Your task to perform on an android device: turn on translation in the chrome app Image 0: 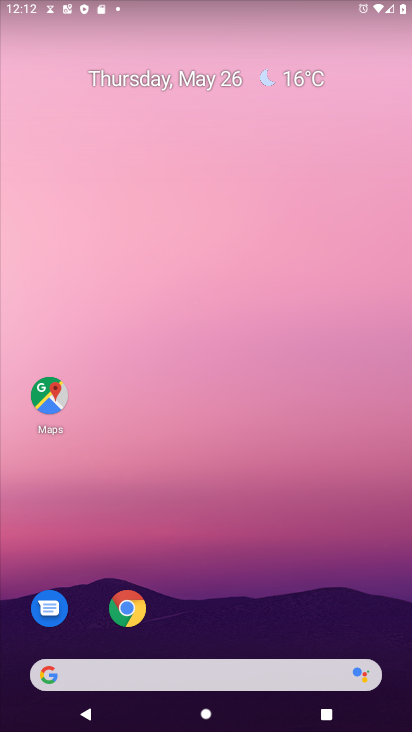
Step 0: click (126, 609)
Your task to perform on an android device: turn on translation in the chrome app Image 1: 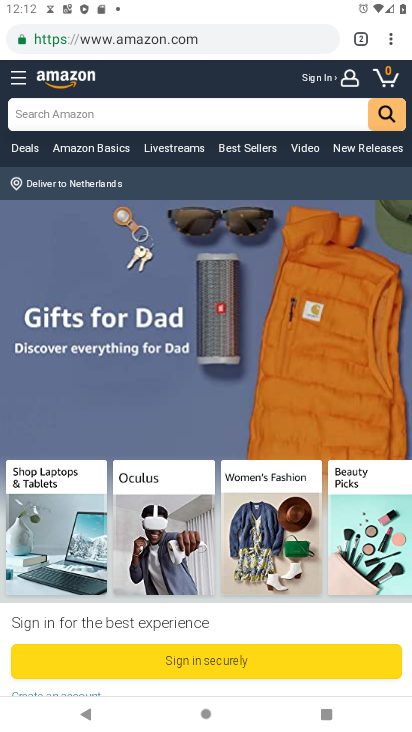
Step 1: click (391, 45)
Your task to perform on an android device: turn on translation in the chrome app Image 2: 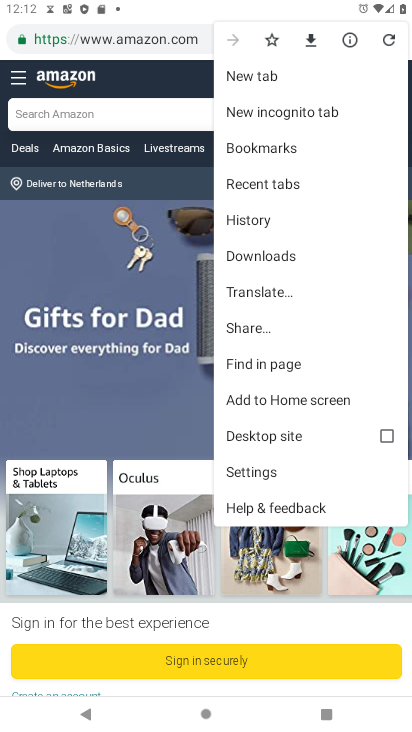
Step 2: click (250, 467)
Your task to perform on an android device: turn on translation in the chrome app Image 3: 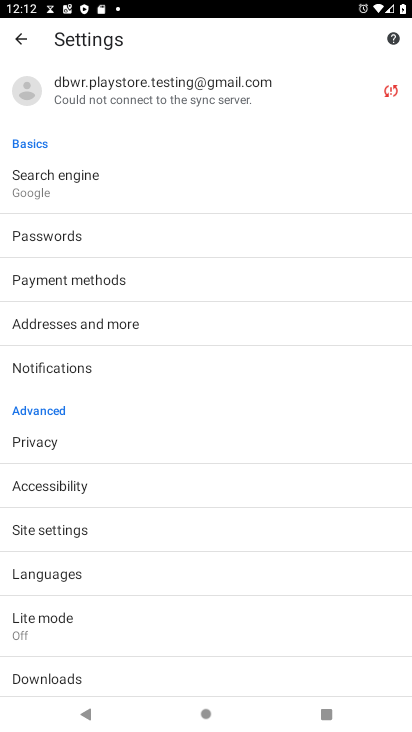
Step 3: click (50, 572)
Your task to perform on an android device: turn on translation in the chrome app Image 4: 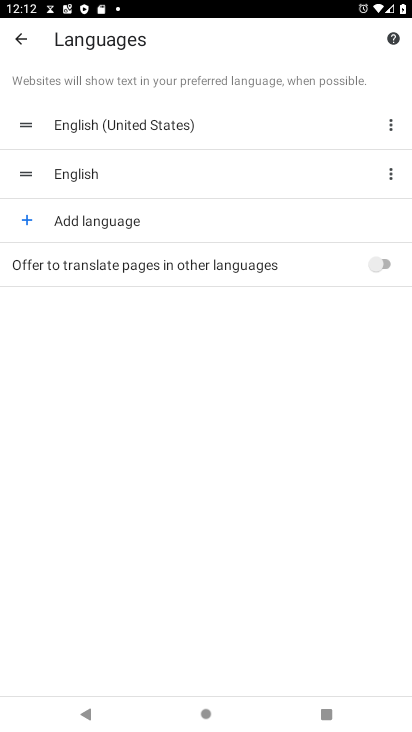
Step 4: click (385, 261)
Your task to perform on an android device: turn on translation in the chrome app Image 5: 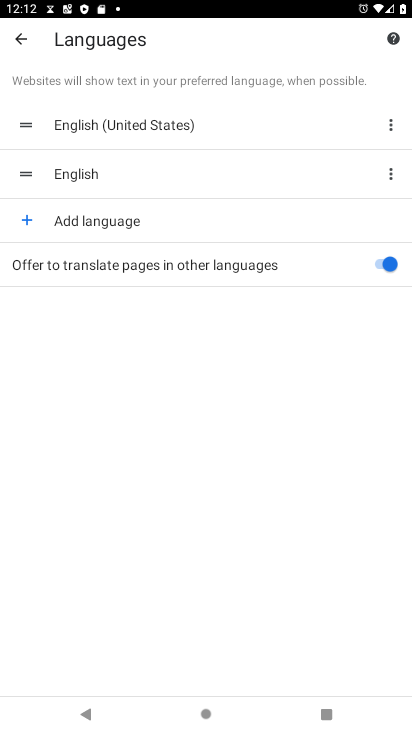
Step 5: task complete